Your task to perform on an android device: change keyboard looks Image 0: 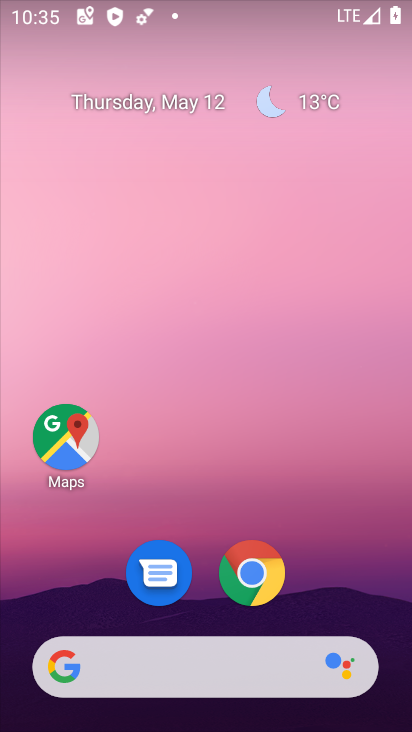
Step 0: drag from (204, 626) to (129, 10)
Your task to perform on an android device: change keyboard looks Image 1: 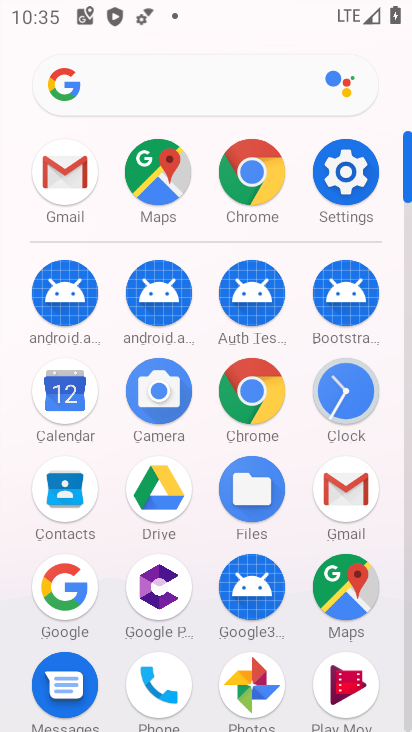
Step 1: click (351, 184)
Your task to perform on an android device: change keyboard looks Image 2: 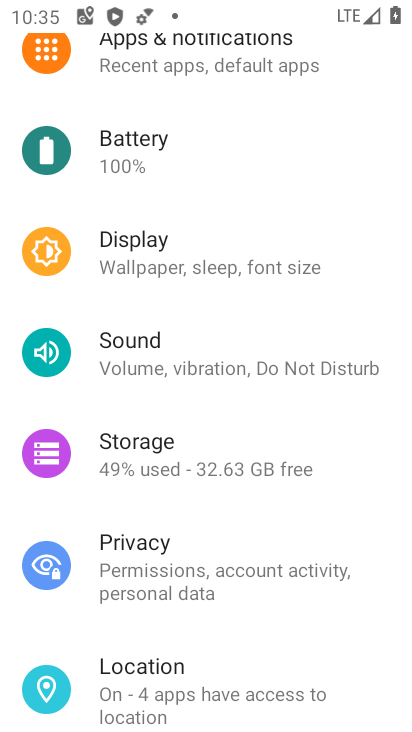
Step 2: drag from (242, 619) to (180, 139)
Your task to perform on an android device: change keyboard looks Image 3: 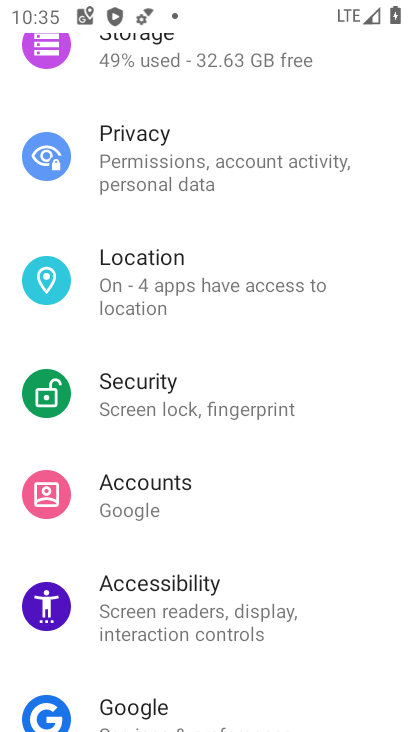
Step 3: drag from (176, 671) to (152, 166)
Your task to perform on an android device: change keyboard looks Image 4: 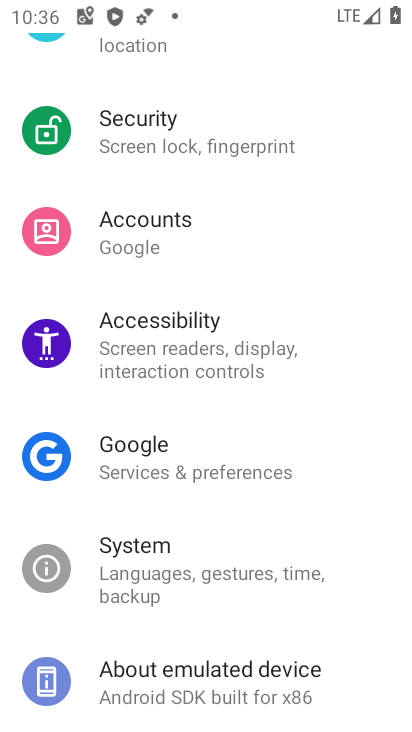
Step 4: click (125, 570)
Your task to perform on an android device: change keyboard looks Image 5: 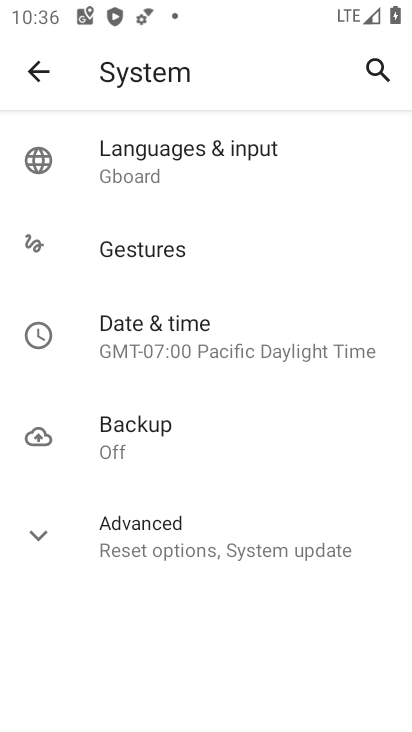
Step 5: click (184, 152)
Your task to perform on an android device: change keyboard looks Image 6: 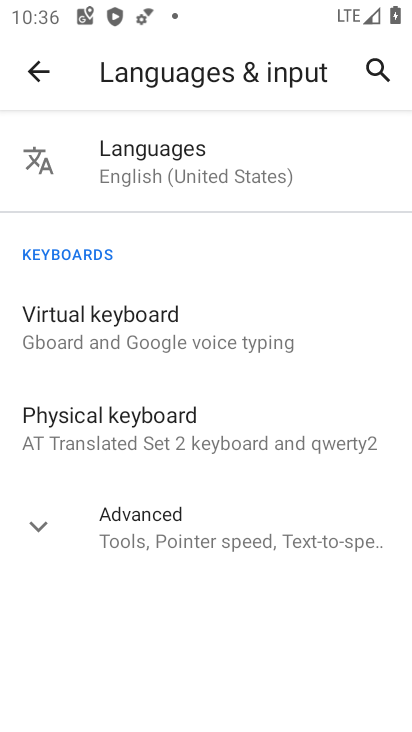
Step 6: click (162, 348)
Your task to perform on an android device: change keyboard looks Image 7: 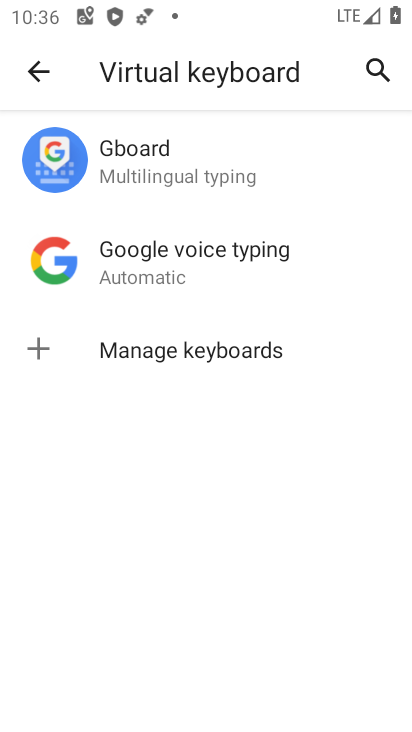
Step 7: click (131, 184)
Your task to perform on an android device: change keyboard looks Image 8: 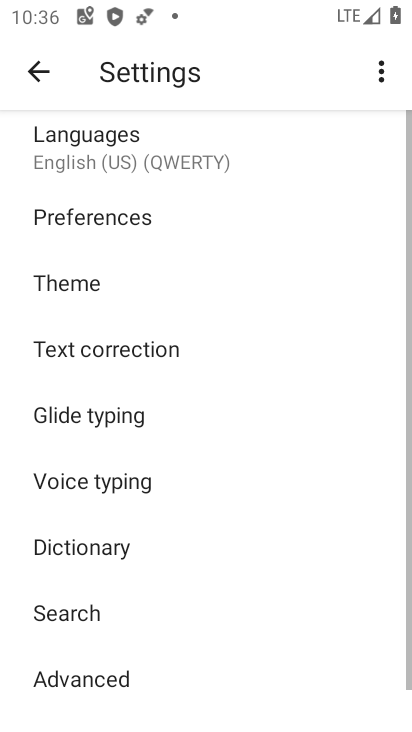
Step 8: click (36, 282)
Your task to perform on an android device: change keyboard looks Image 9: 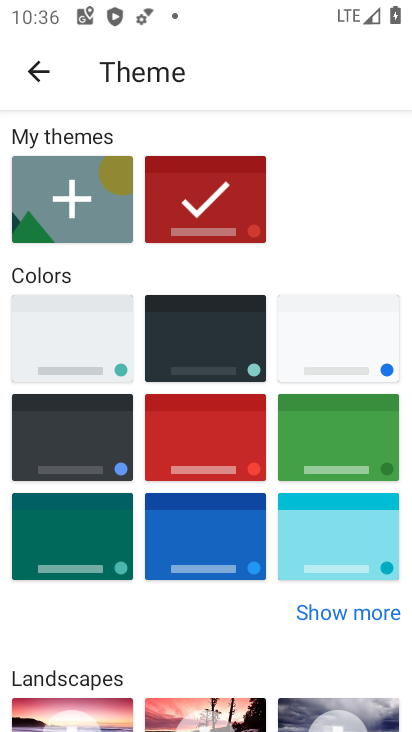
Step 9: click (210, 449)
Your task to perform on an android device: change keyboard looks Image 10: 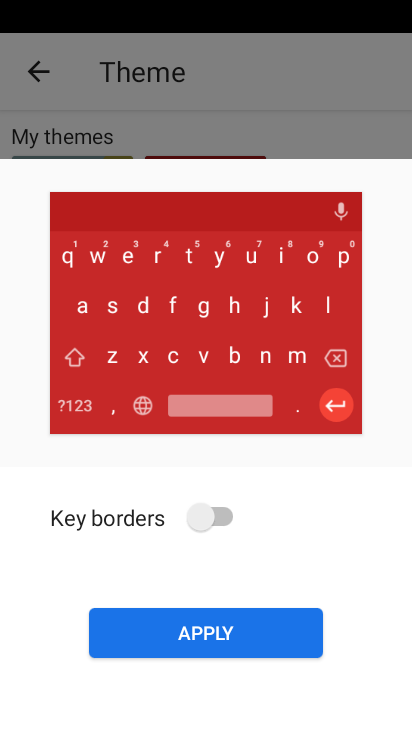
Step 10: click (252, 617)
Your task to perform on an android device: change keyboard looks Image 11: 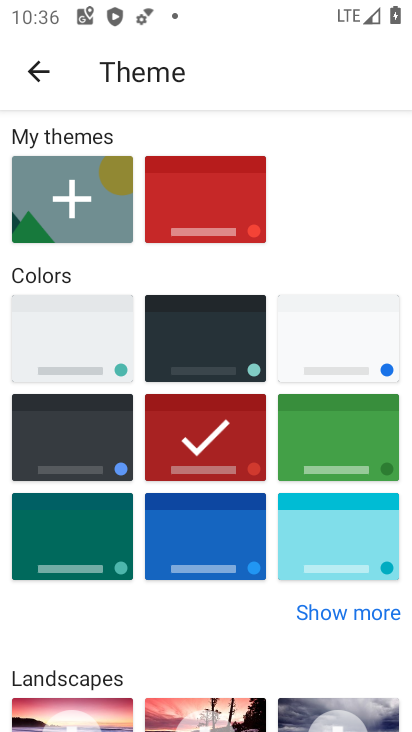
Step 11: task complete